Your task to perform on an android device: Go to Google Image 0: 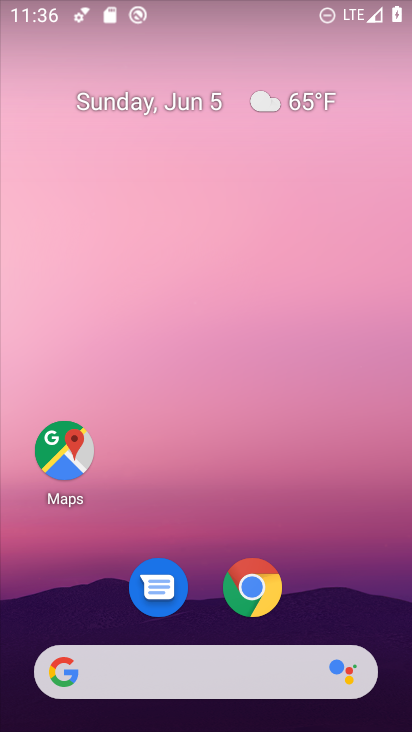
Step 0: click (232, 676)
Your task to perform on an android device: Go to Google Image 1: 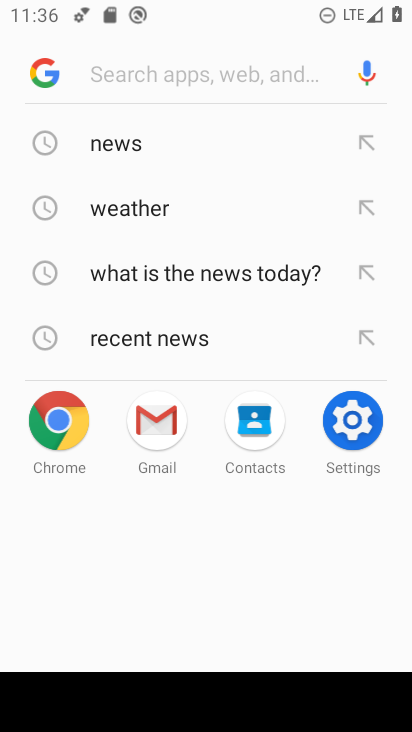
Step 1: task complete